Your task to perform on an android device: turn on bluetooth scan Image 0: 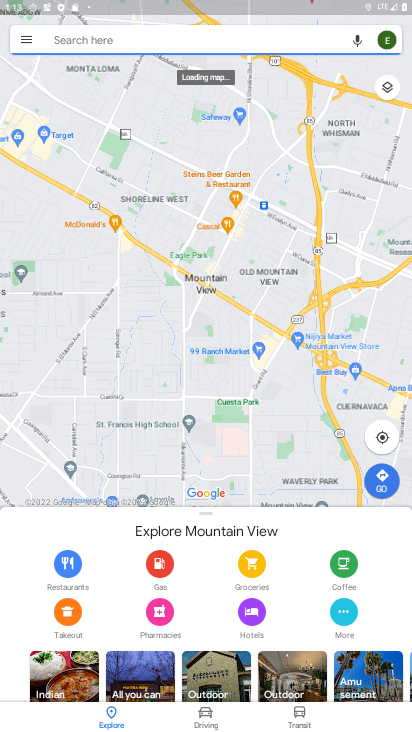
Step 0: drag from (36, 714) to (223, 74)
Your task to perform on an android device: turn on bluetooth scan Image 1: 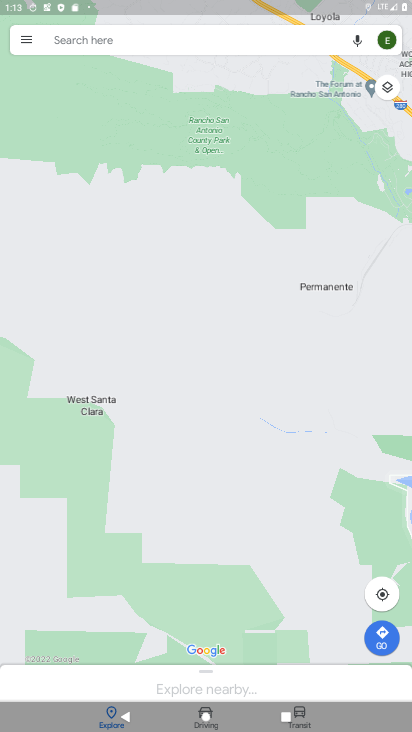
Step 1: press home button
Your task to perform on an android device: turn on bluetooth scan Image 2: 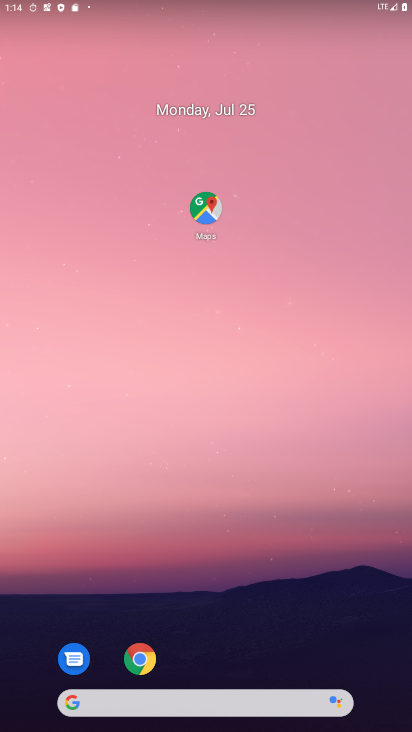
Step 2: drag from (77, 587) to (331, 24)
Your task to perform on an android device: turn on bluetooth scan Image 3: 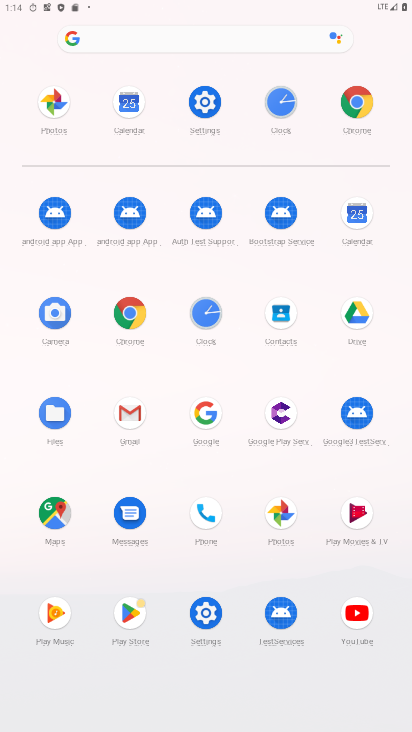
Step 3: click (222, 618)
Your task to perform on an android device: turn on bluetooth scan Image 4: 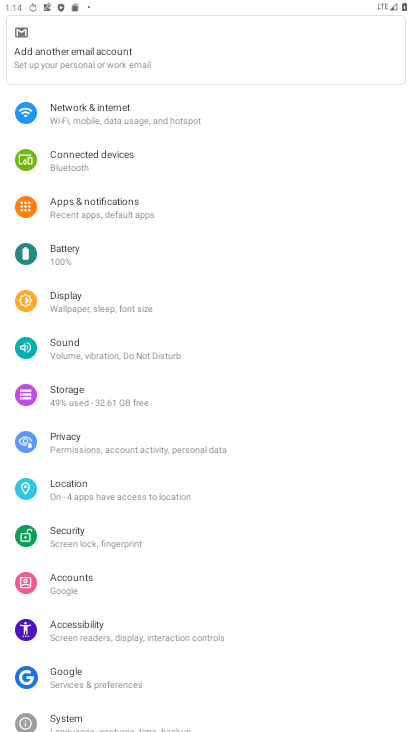
Step 4: click (86, 120)
Your task to perform on an android device: turn on bluetooth scan Image 5: 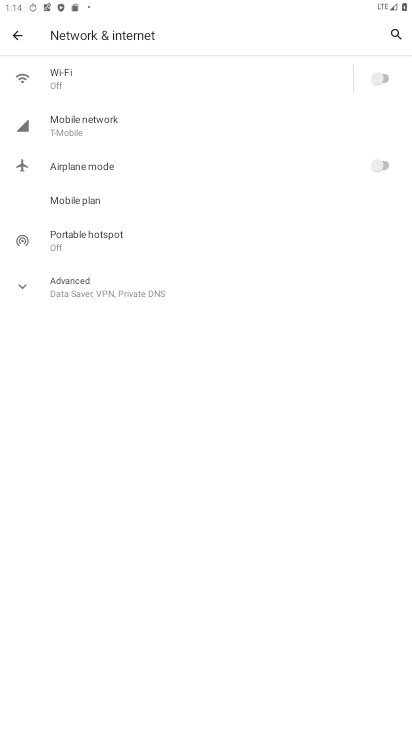
Step 5: click (11, 37)
Your task to perform on an android device: turn on bluetooth scan Image 6: 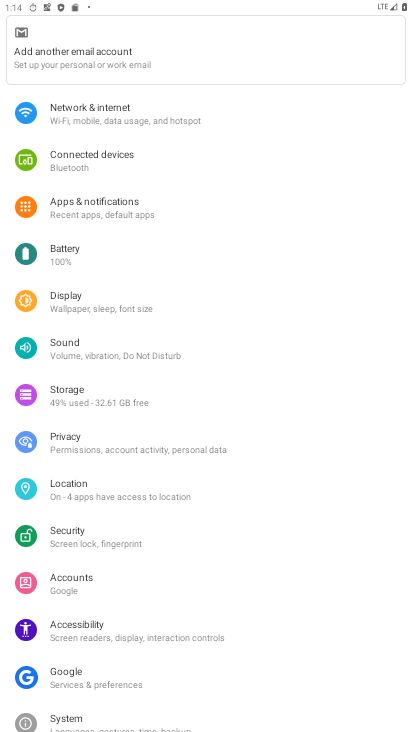
Step 6: click (88, 165)
Your task to perform on an android device: turn on bluetooth scan Image 7: 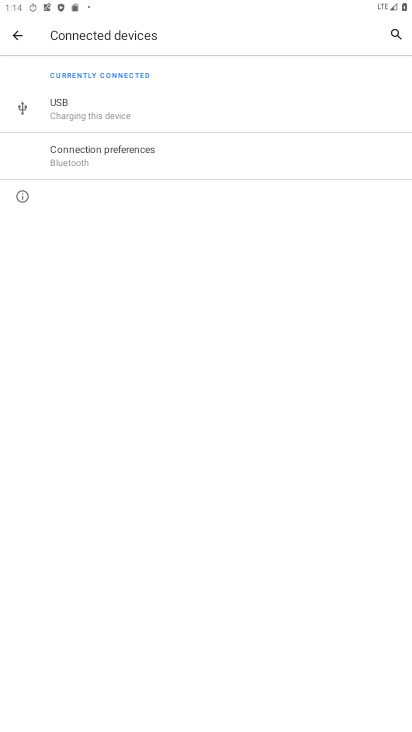
Step 7: click (91, 160)
Your task to perform on an android device: turn on bluetooth scan Image 8: 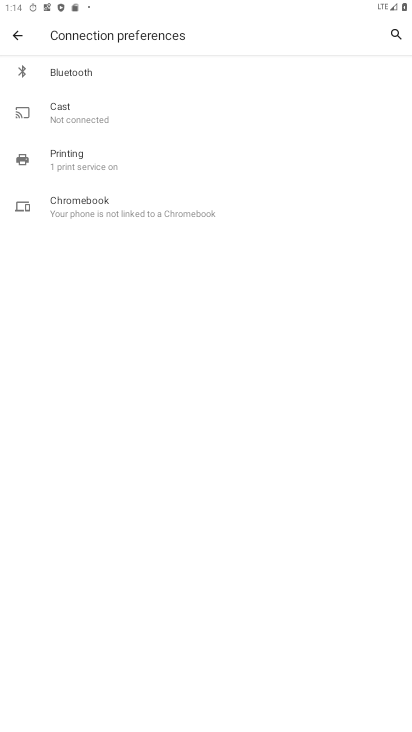
Step 8: click (79, 74)
Your task to perform on an android device: turn on bluetooth scan Image 9: 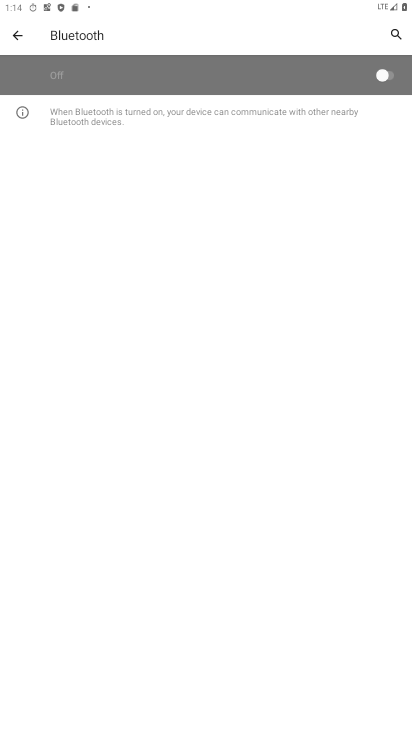
Step 9: click (366, 72)
Your task to perform on an android device: turn on bluetooth scan Image 10: 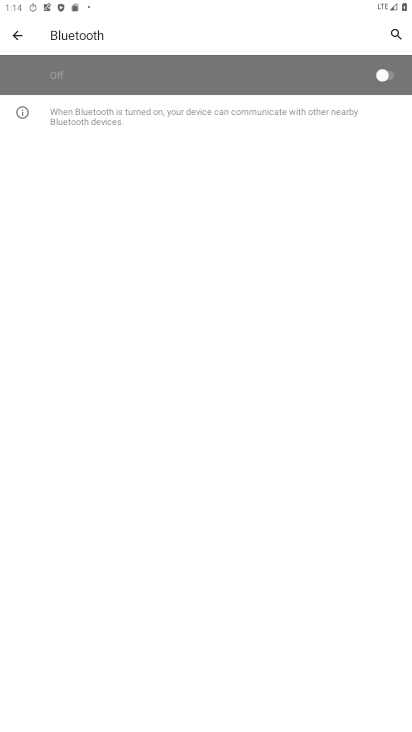
Step 10: click (378, 84)
Your task to perform on an android device: turn on bluetooth scan Image 11: 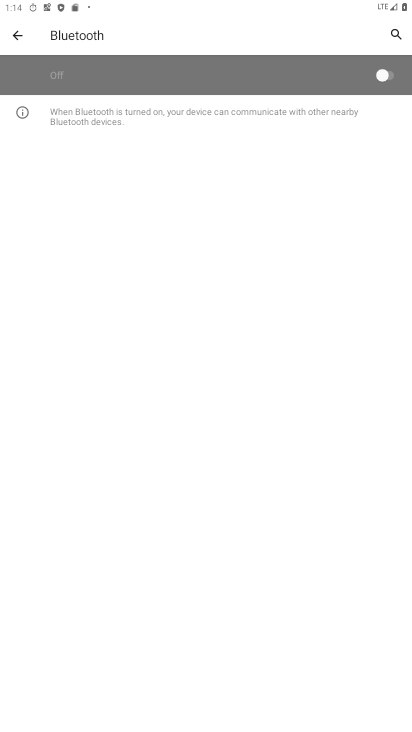
Step 11: task complete